Your task to perform on an android device: Search for Italian restaurants on Maps Image 0: 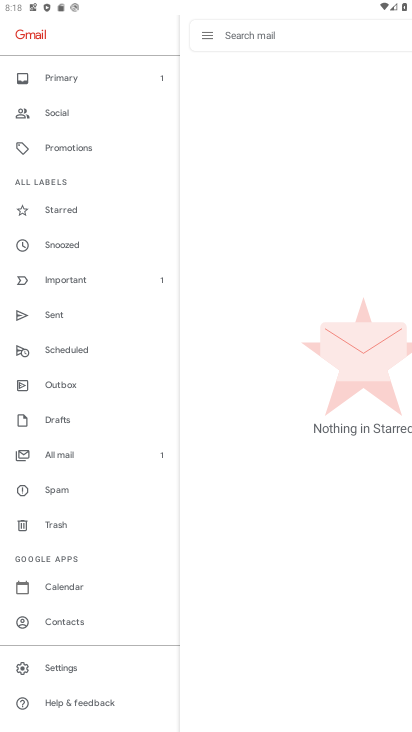
Step 0: press home button
Your task to perform on an android device: Search for Italian restaurants on Maps Image 1: 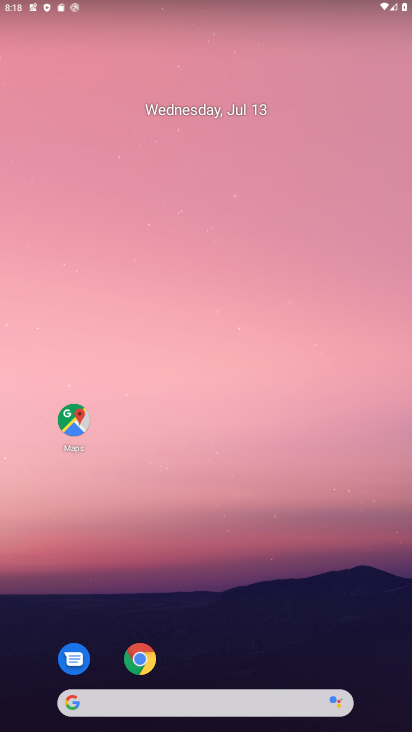
Step 1: click (78, 429)
Your task to perform on an android device: Search for Italian restaurants on Maps Image 2: 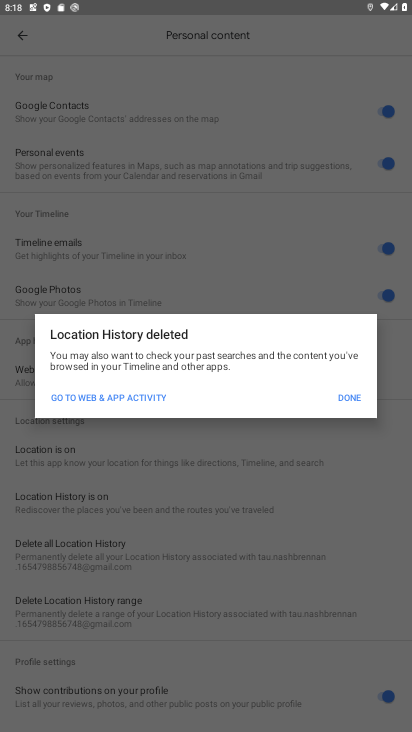
Step 2: click (350, 398)
Your task to perform on an android device: Search for Italian restaurants on Maps Image 3: 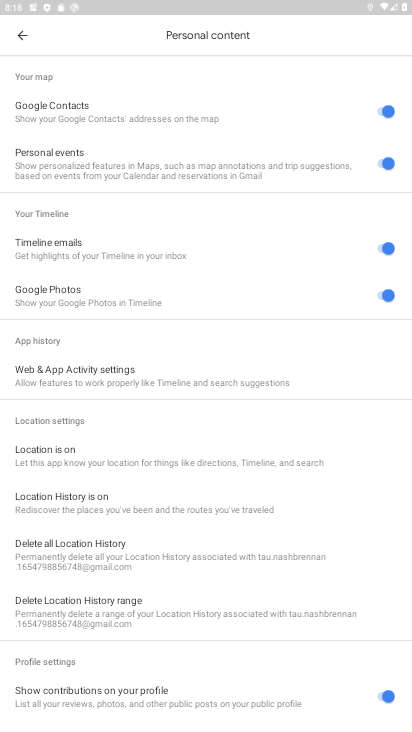
Step 3: press back button
Your task to perform on an android device: Search for Italian restaurants on Maps Image 4: 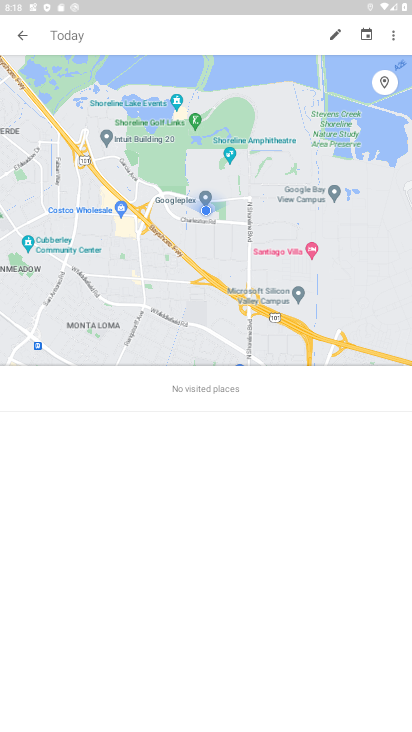
Step 4: click (237, 47)
Your task to perform on an android device: Search for Italian restaurants on Maps Image 5: 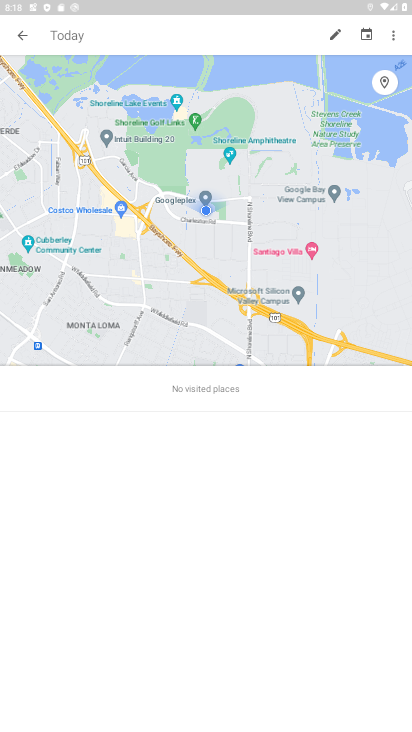
Step 5: click (21, 40)
Your task to perform on an android device: Search for Italian restaurants on Maps Image 6: 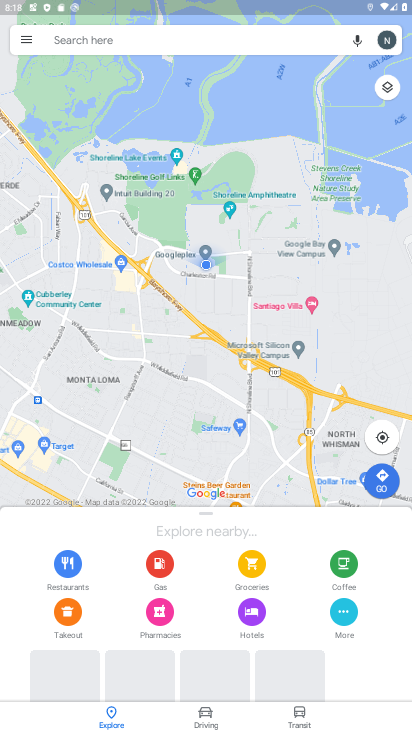
Step 6: click (154, 41)
Your task to perform on an android device: Search for Italian restaurants on Maps Image 7: 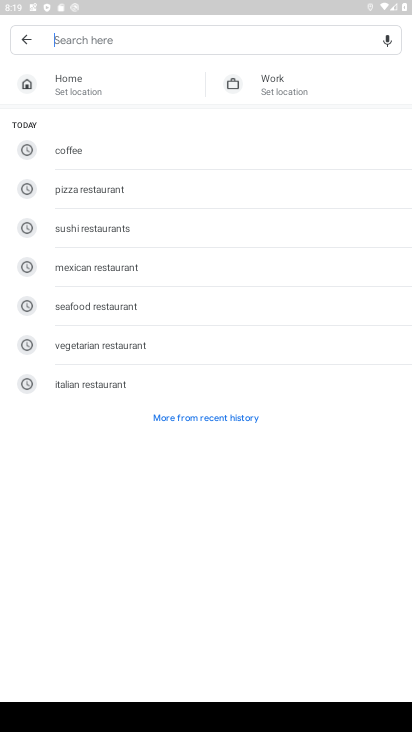
Step 7: type "Italian restaurants"
Your task to perform on an android device: Search for Italian restaurants on Maps Image 8: 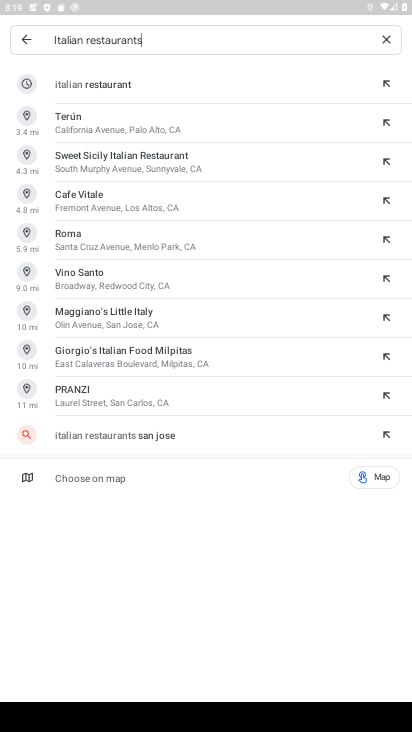
Step 8: click (163, 91)
Your task to perform on an android device: Search for Italian restaurants on Maps Image 9: 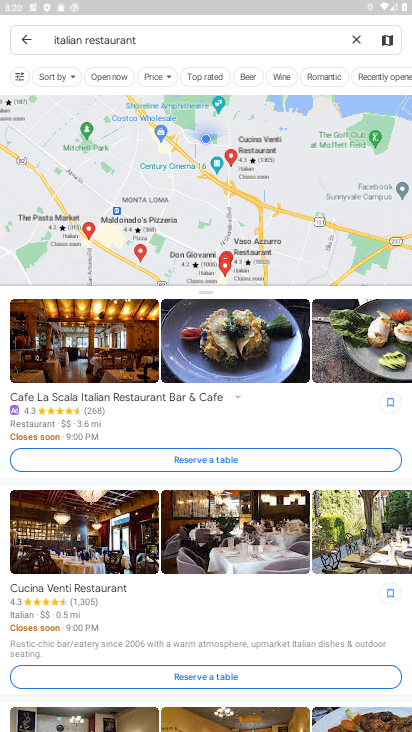
Step 9: task complete